Your task to perform on an android device: Search for sushi restaurants on Maps Image 0: 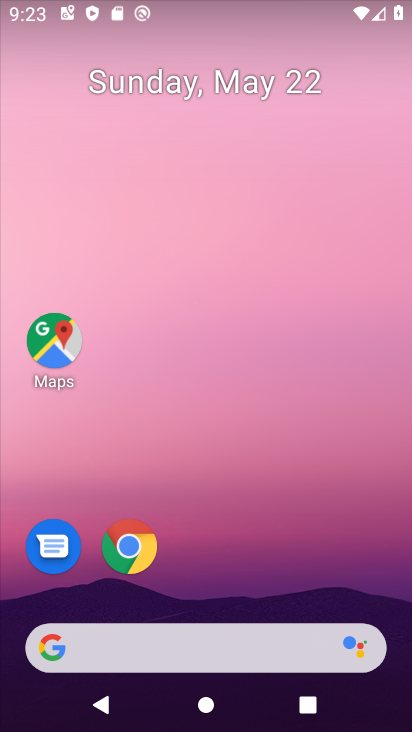
Step 0: click (51, 333)
Your task to perform on an android device: Search for sushi restaurants on Maps Image 1: 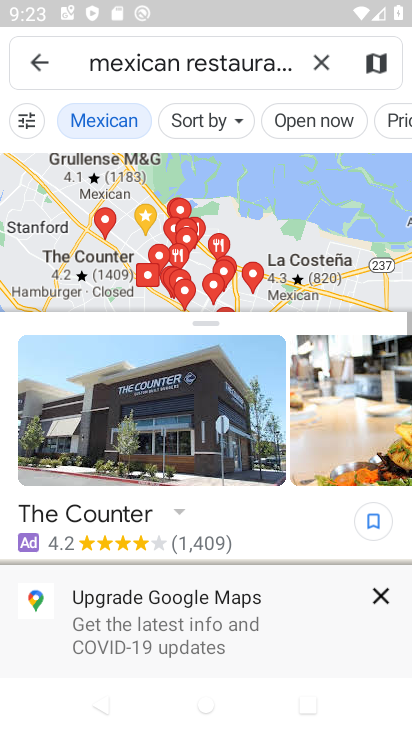
Step 1: click (322, 63)
Your task to perform on an android device: Search for sushi restaurants on Maps Image 2: 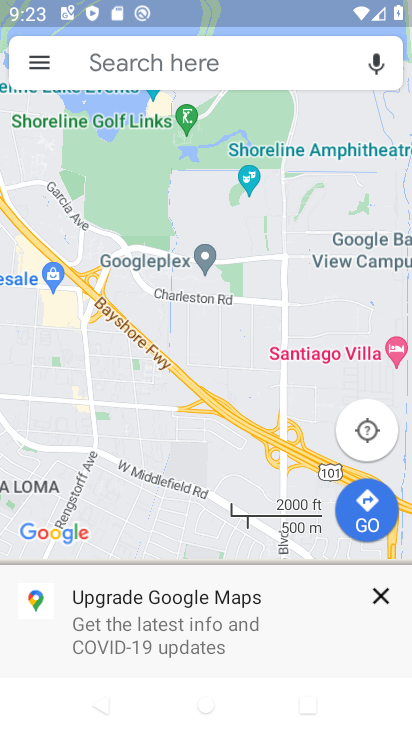
Step 2: click (221, 72)
Your task to perform on an android device: Search for sushi restaurants on Maps Image 3: 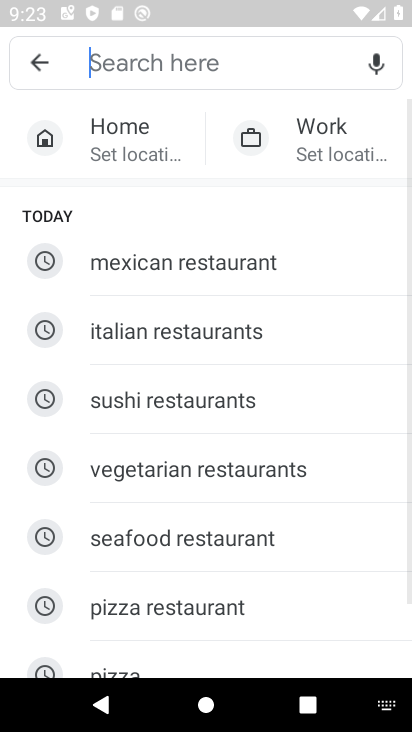
Step 3: click (159, 398)
Your task to perform on an android device: Search for sushi restaurants on Maps Image 4: 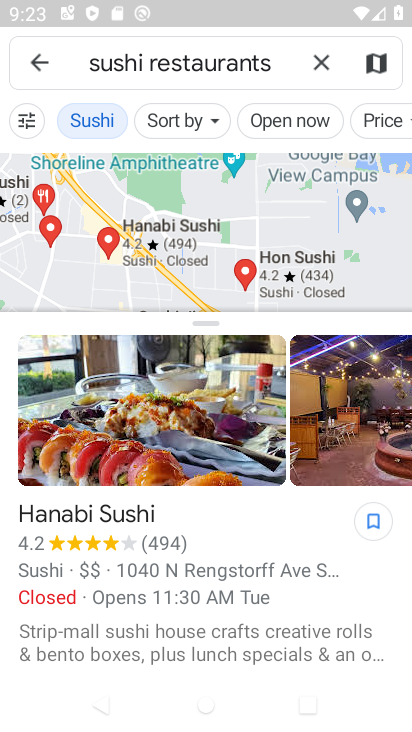
Step 4: task complete